Your task to perform on an android device: Go to Amazon Image 0: 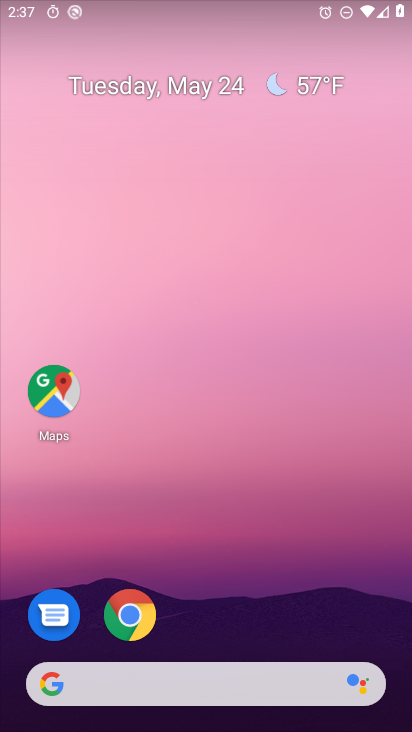
Step 0: click (167, 621)
Your task to perform on an android device: Go to Amazon Image 1: 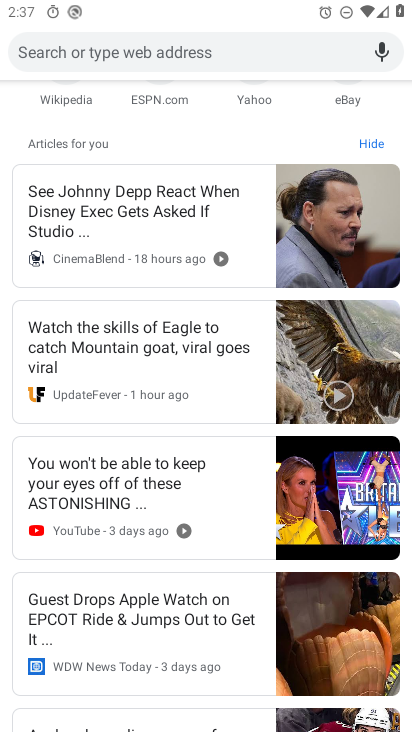
Step 1: click (186, 57)
Your task to perform on an android device: Go to Amazon Image 2: 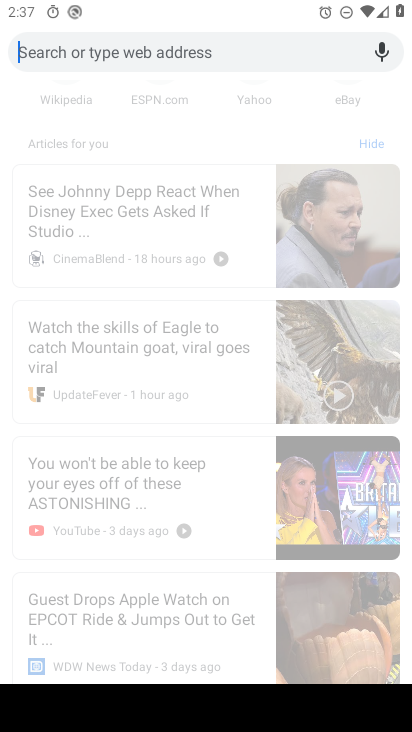
Step 2: type "amazon"
Your task to perform on an android device: Go to Amazon Image 3: 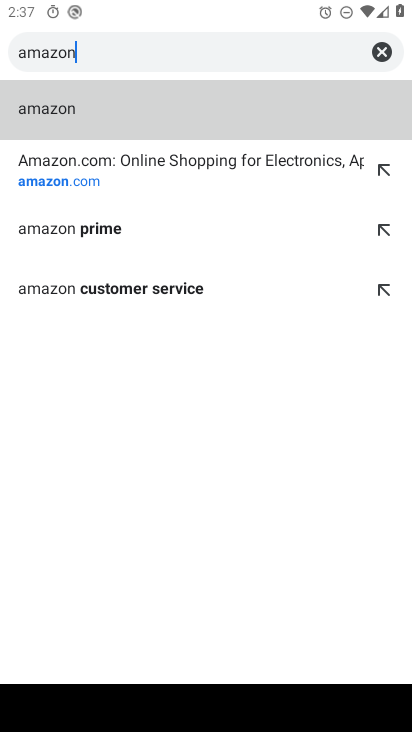
Step 3: click (72, 215)
Your task to perform on an android device: Go to Amazon Image 4: 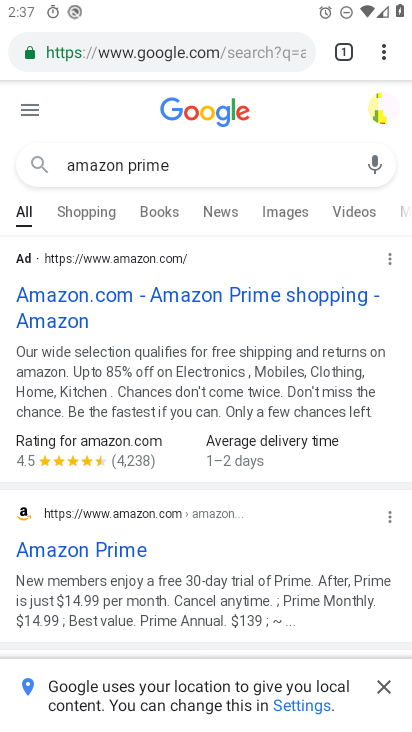
Step 4: task complete